Your task to perform on an android device: toggle improve location accuracy Image 0: 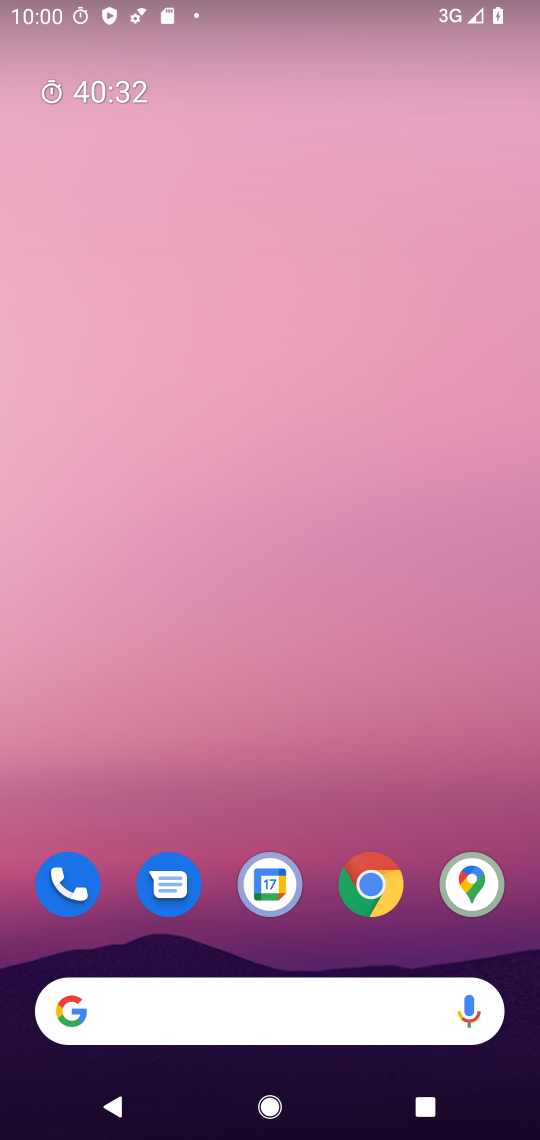
Step 0: drag from (277, 823) to (302, 201)
Your task to perform on an android device: toggle improve location accuracy Image 1: 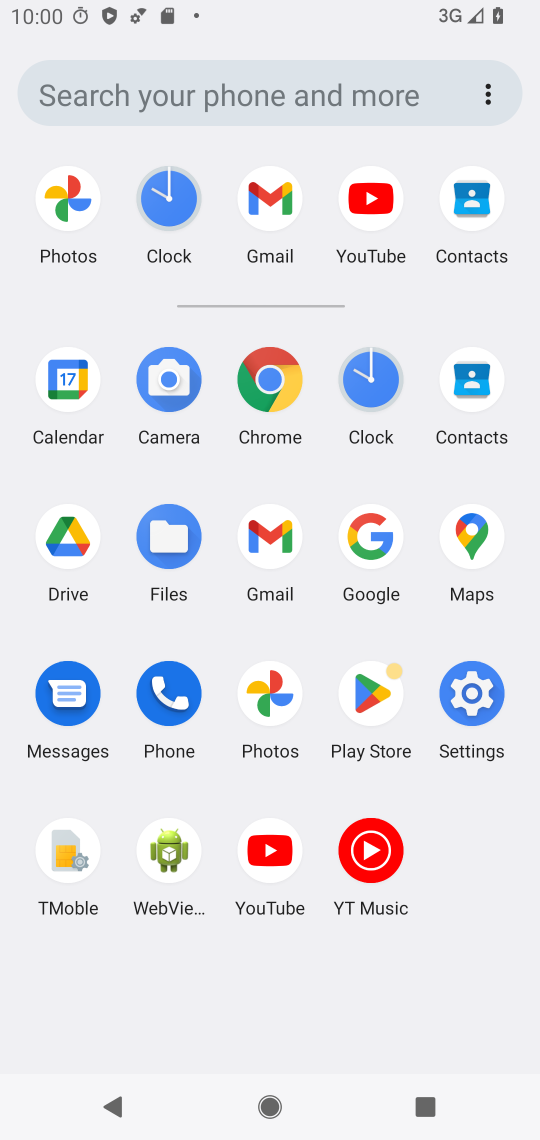
Step 1: click (459, 687)
Your task to perform on an android device: toggle improve location accuracy Image 2: 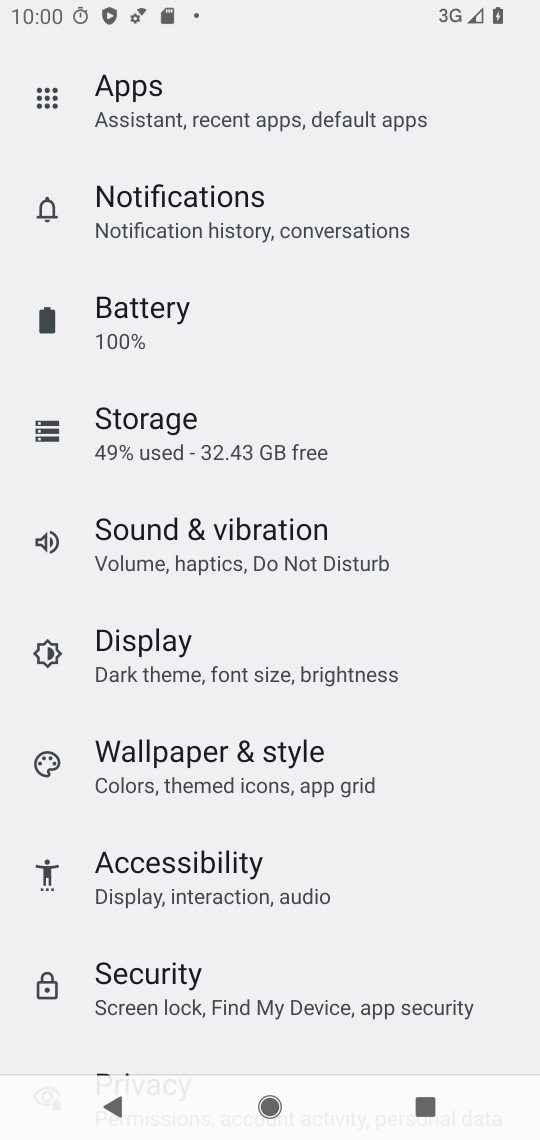
Step 2: drag from (195, 853) to (240, 399)
Your task to perform on an android device: toggle improve location accuracy Image 3: 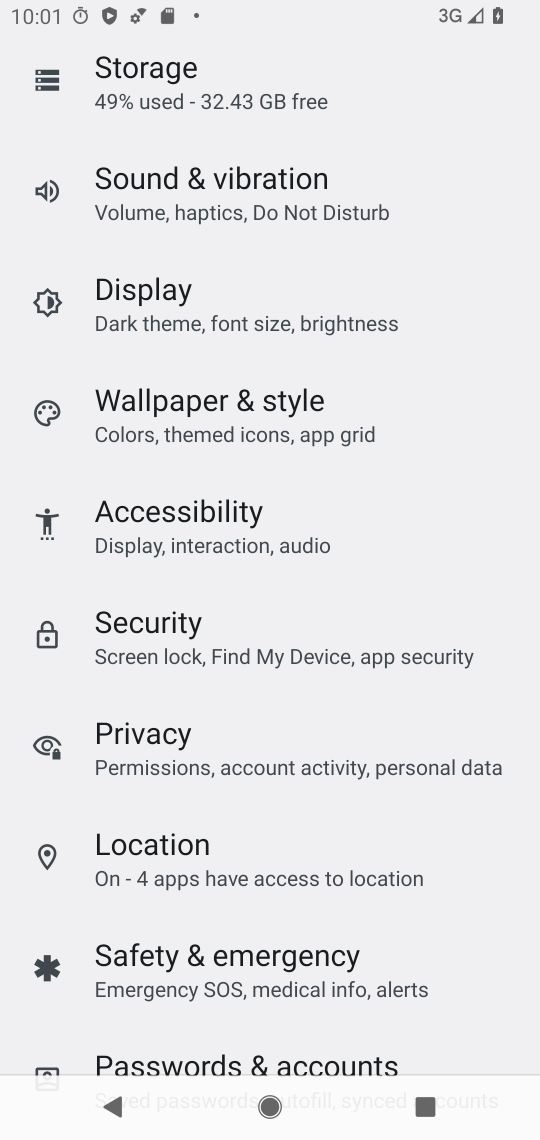
Step 3: click (200, 849)
Your task to perform on an android device: toggle improve location accuracy Image 4: 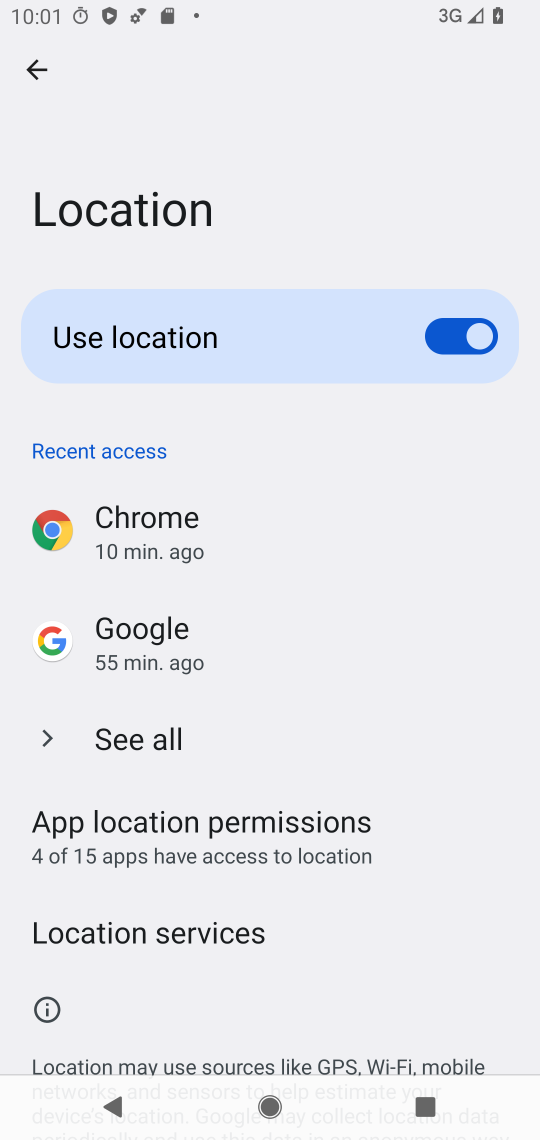
Step 4: drag from (300, 991) to (367, 565)
Your task to perform on an android device: toggle improve location accuracy Image 5: 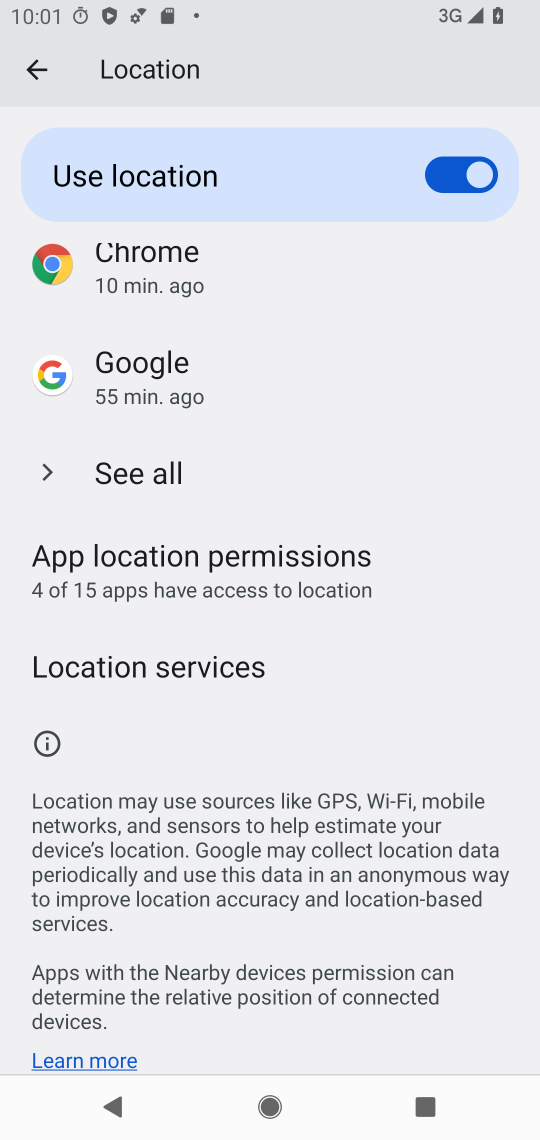
Step 5: click (268, 680)
Your task to perform on an android device: toggle improve location accuracy Image 6: 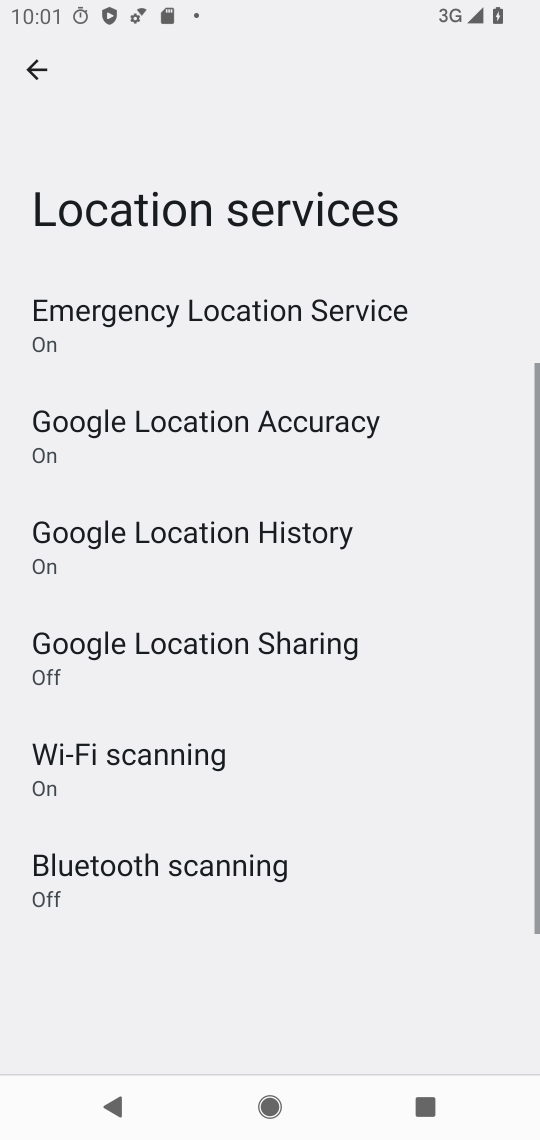
Step 6: click (379, 442)
Your task to perform on an android device: toggle improve location accuracy Image 7: 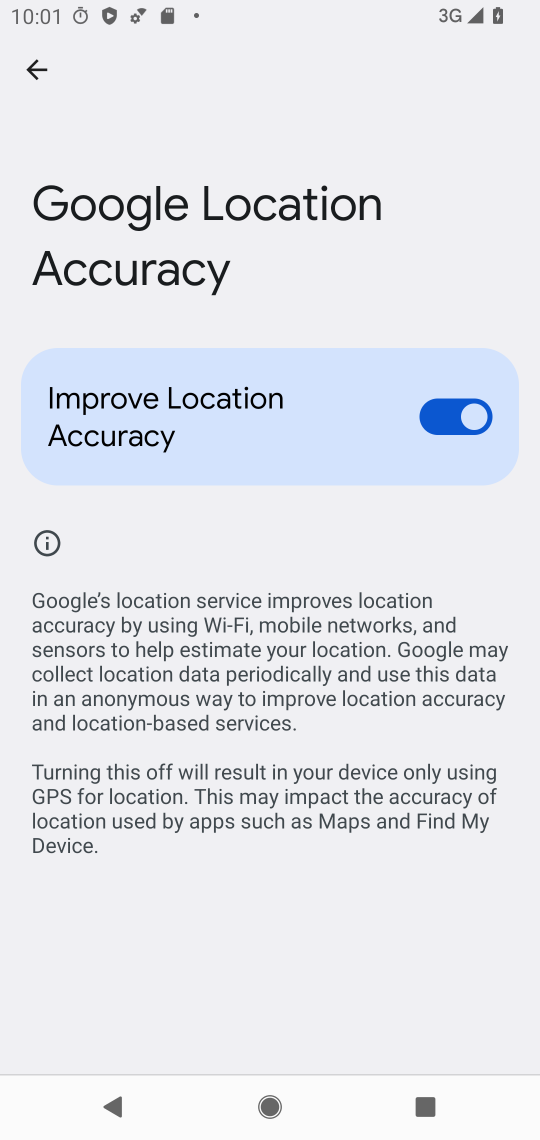
Step 7: click (436, 426)
Your task to perform on an android device: toggle improve location accuracy Image 8: 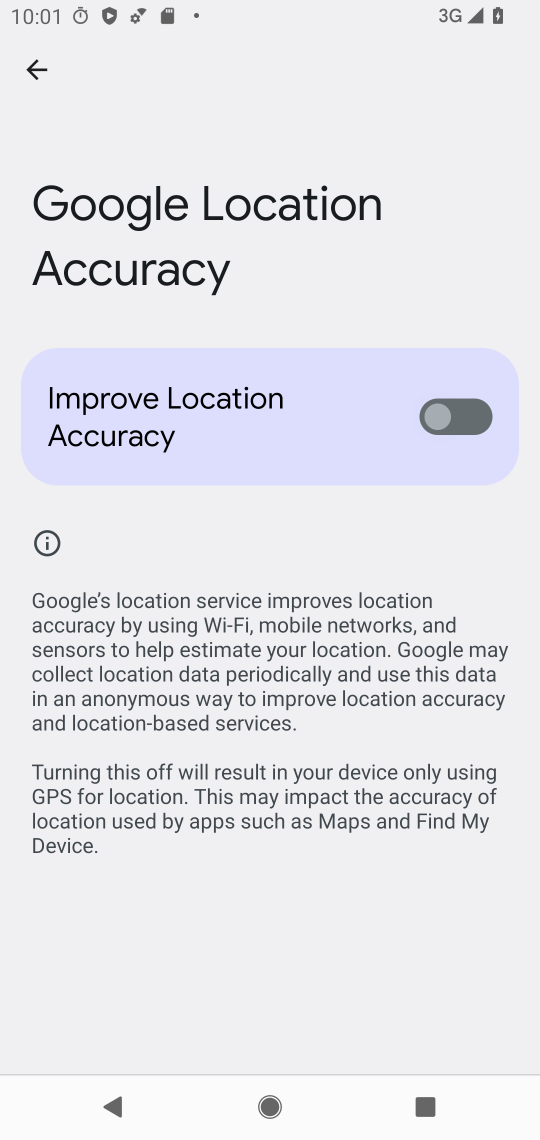
Step 8: task complete